Your task to perform on an android device: turn notification dots on Image 0: 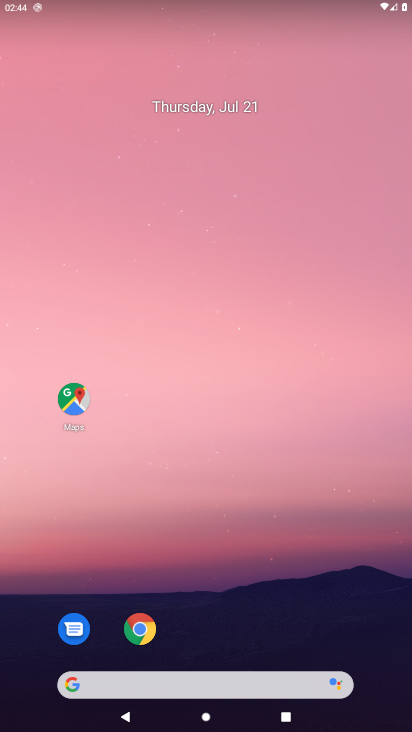
Step 0: drag from (26, 680) to (235, 132)
Your task to perform on an android device: turn notification dots on Image 1: 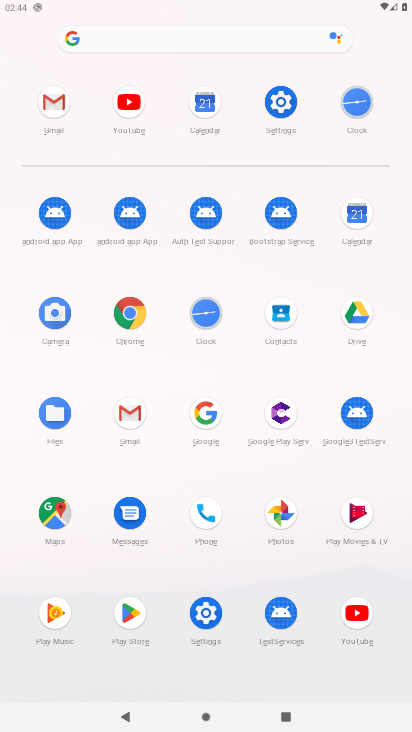
Step 1: click (200, 625)
Your task to perform on an android device: turn notification dots on Image 2: 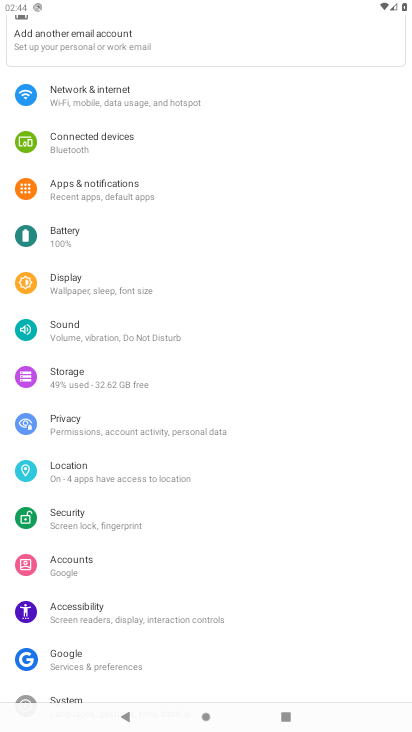
Step 2: click (93, 167)
Your task to perform on an android device: turn notification dots on Image 3: 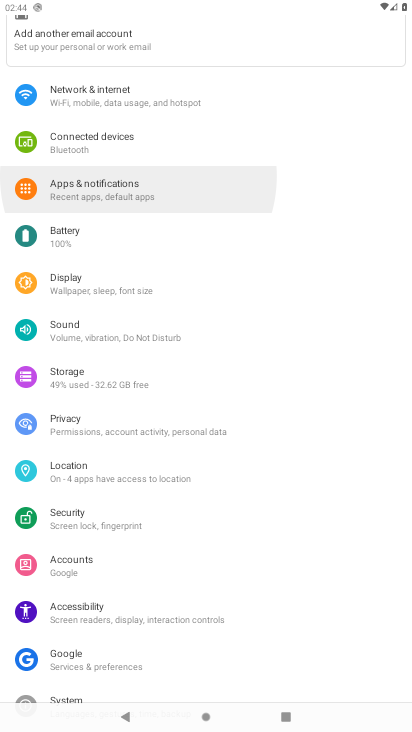
Step 3: click (95, 196)
Your task to perform on an android device: turn notification dots on Image 4: 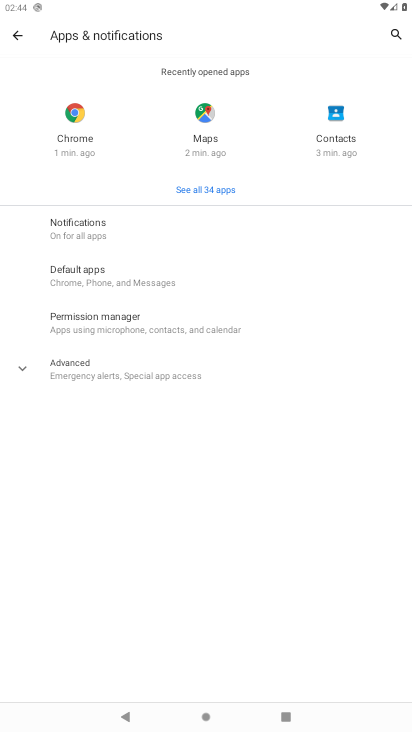
Step 4: click (57, 370)
Your task to perform on an android device: turn notification dots on Image 5: 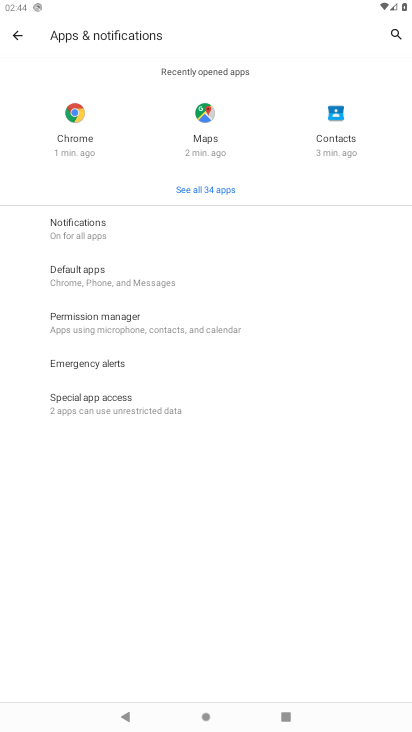
Step 5: click (74, 403)
Your task to perform on an android device: turn notification dots on Image 6: 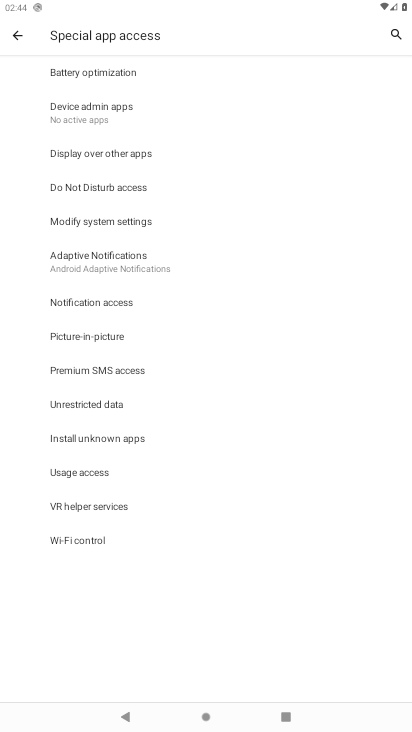
Step 6: click (11, 27)
Your task to perform on an android device: turn notification dots on Image 7: 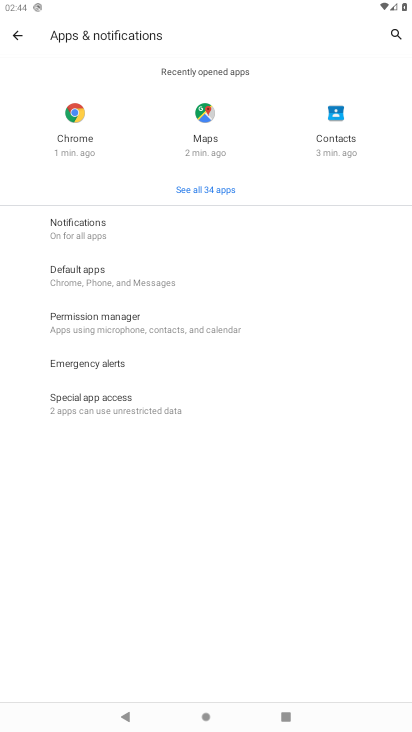
Step 7: click (87, 236)
Your task to perform on an android device: turn notification dots on Image 8: 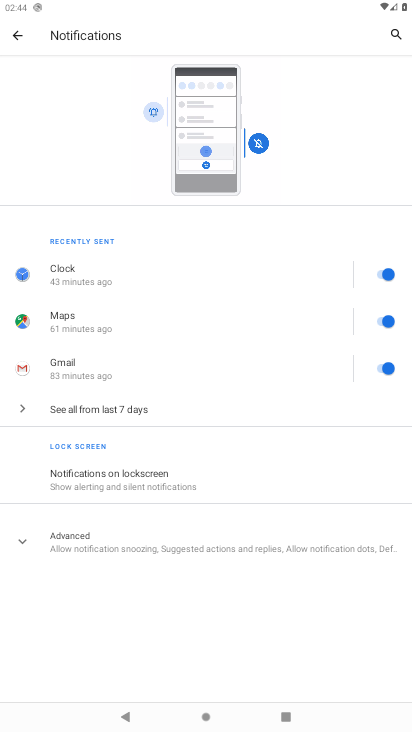
Step 8: click (87, 540)
Your task to perform on an android device: turn notification dots on Image 9: 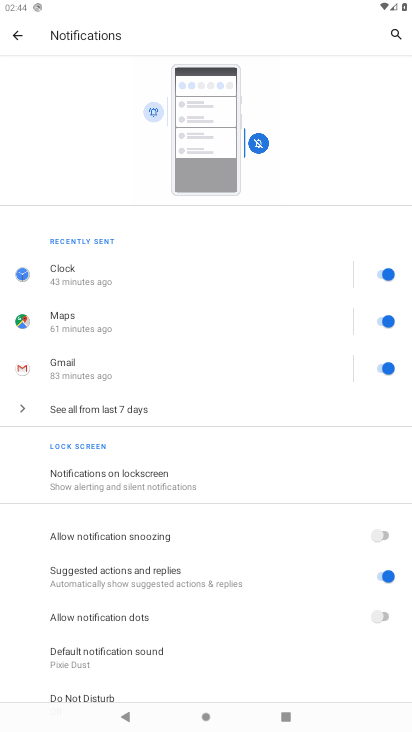
Step 9: click (383, 619)
Your task to perform on an android device: turn notification dots on Image 10: 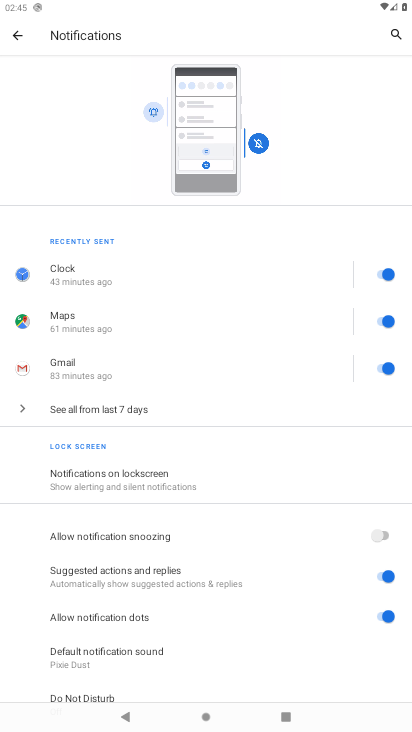
Step 10: task complete